Your task to perform on an android device: What's on my calendar today? Image 0: 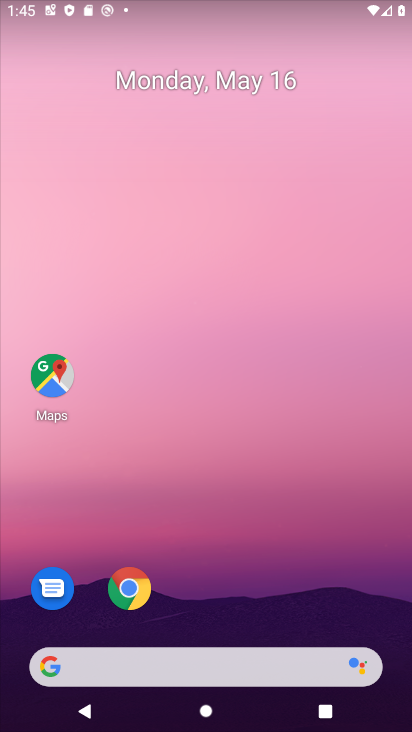
Step 0: drag from (226, 542) to (198, 122)
Your task to perform on an android device: What's on my calendar today? Image 1: 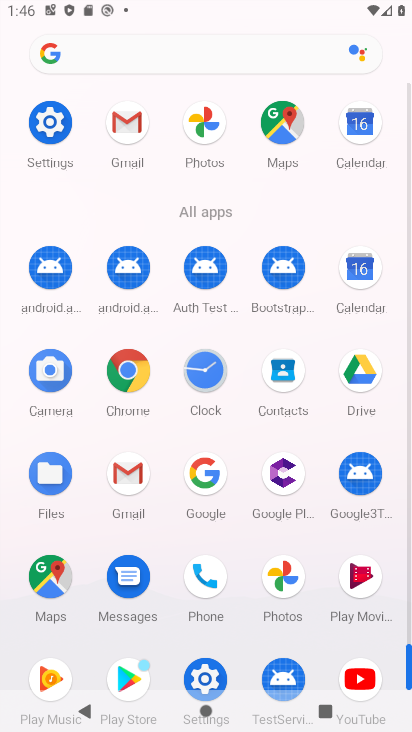
Step 1: click (358, 266)
Your task to perform on an android device: What's on my calendar today? Image 2: 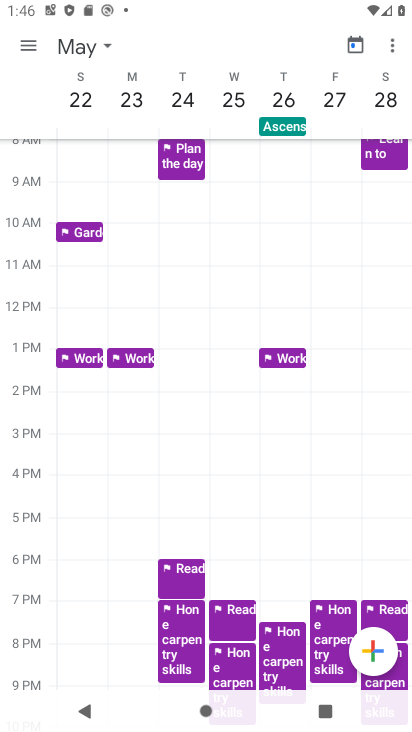
Step 2: click (354, 45)
Your task to perform on an android device: What's on my calendar today? Image 3: 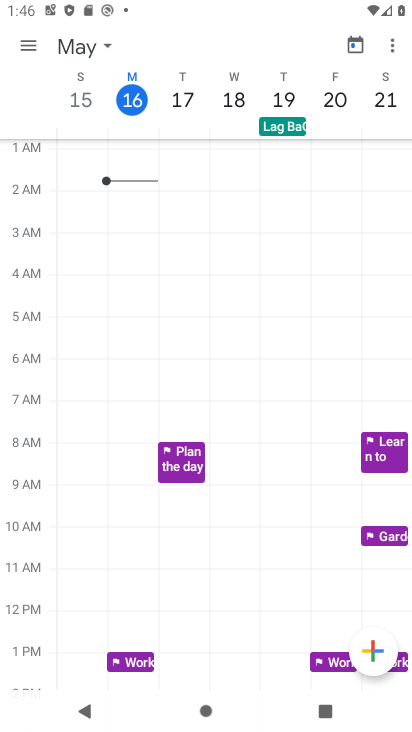
Step 3: click (23, 46)
Your task to perform on an android device: What's on my calendar today? Image 4: 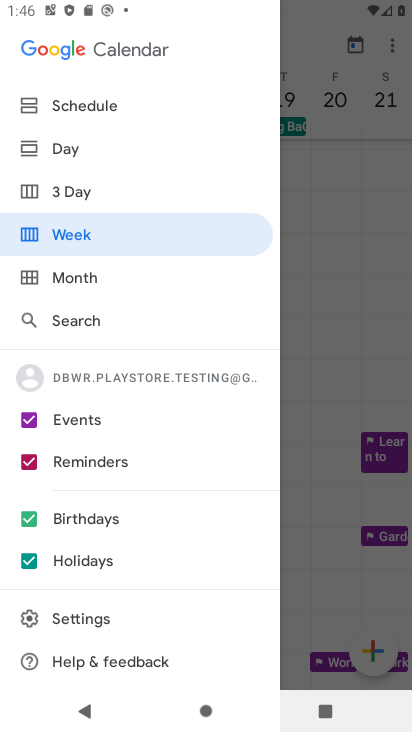
Step 4: click (82, 106)
Your task to perform on an android device: What's on my calendar today? Image 5: 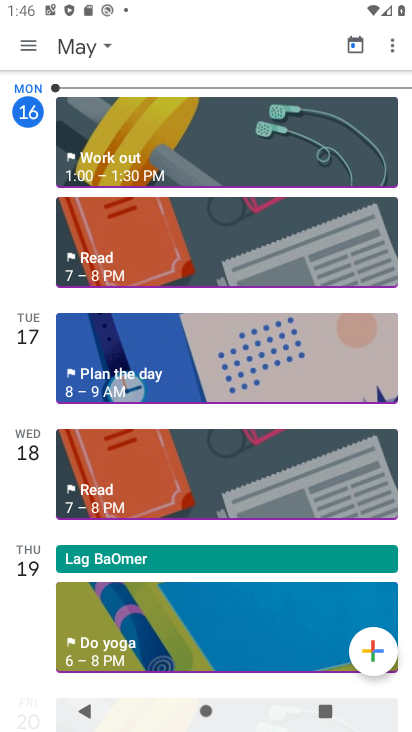
Step 5: click (223, 138)
Your task to perform on an android device: What's on my calendar today? Image 6: 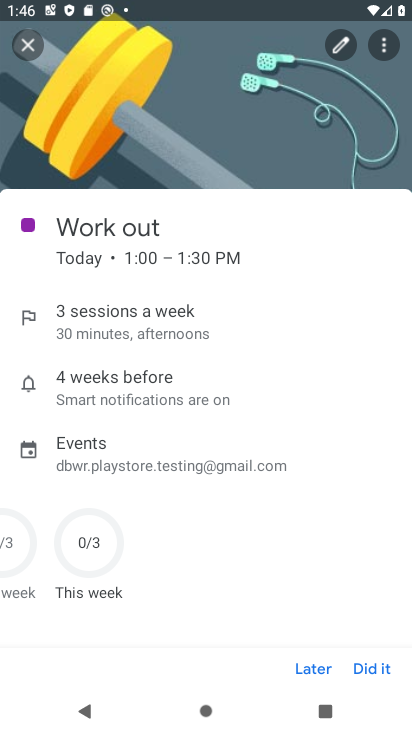
Step 6: task complete